Your task to perform on an android device: clear history in the chrome app Image 0: 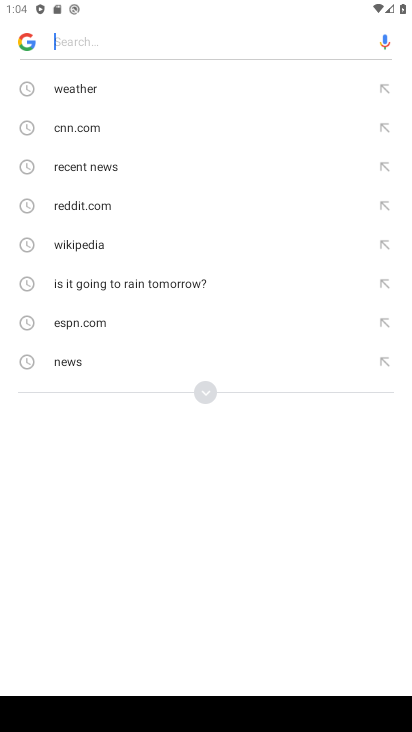
Step 0: press home button
Your task to perform on an android device: clear history in the chrome app Image 1: 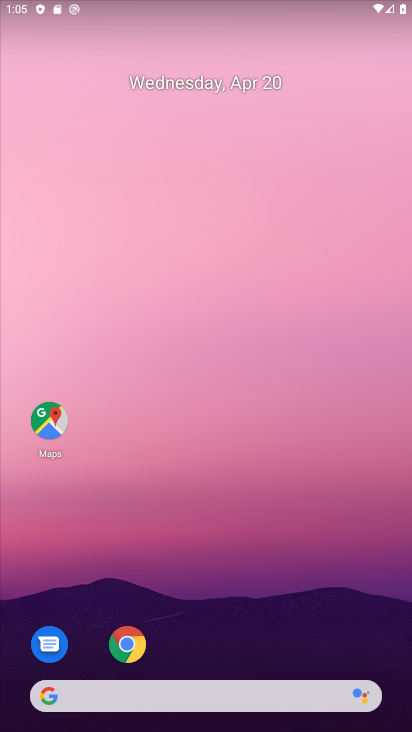
Step 1: click (130, 647)
Your task to perform on an android device: clear history in the chrome app Image 2: 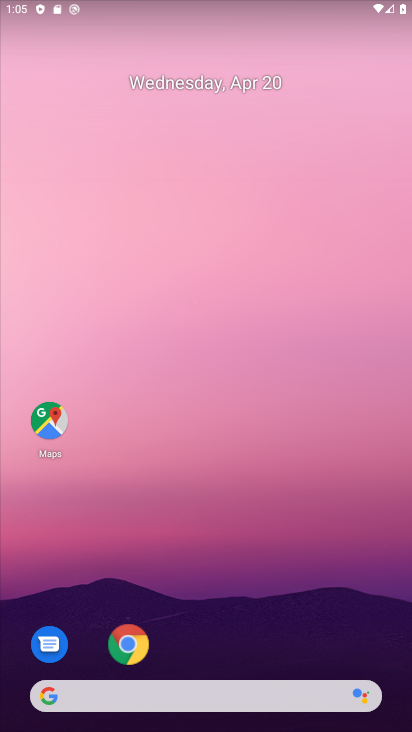
Step 2: click (129, 650)
Your task to perform on an android device: clear history in the chrome app Image 3: 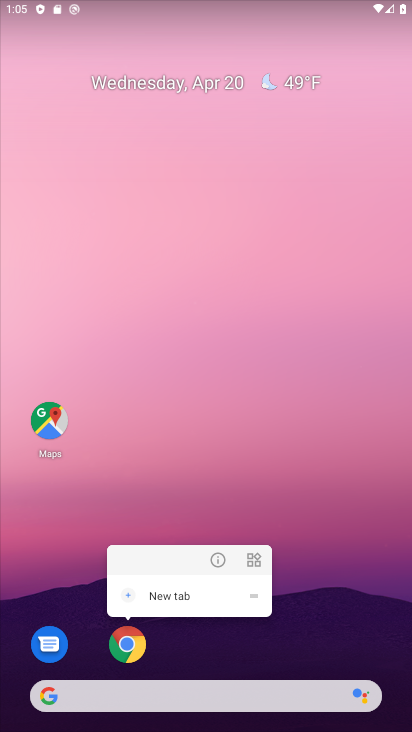
Step 3: click (123, 643)
Your task to perform on an android device: clear history in the chrome app Image 4: 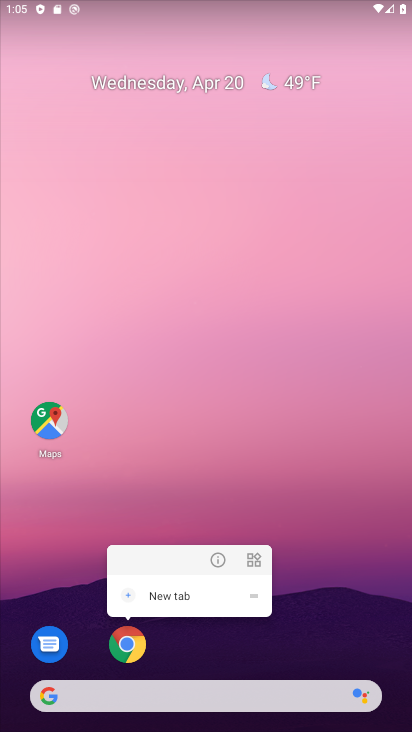
Step 4: click (124, 646)
Your task to perform on an android device: clear history in the chrome app Image 5: 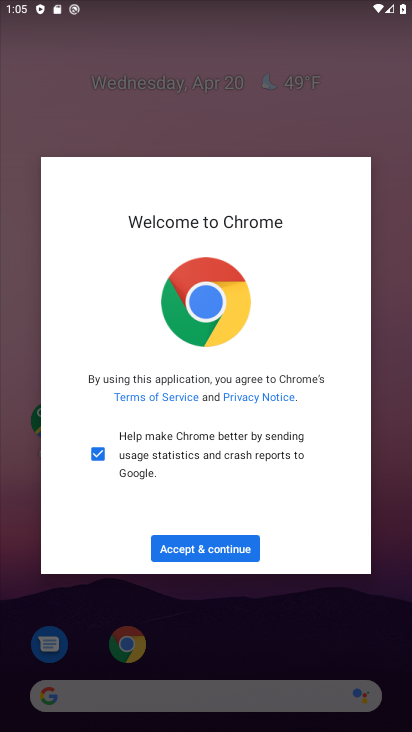
Step 5: click (211, 543)
Your task to perform on an android device: clear history in the chrome app Image 6: 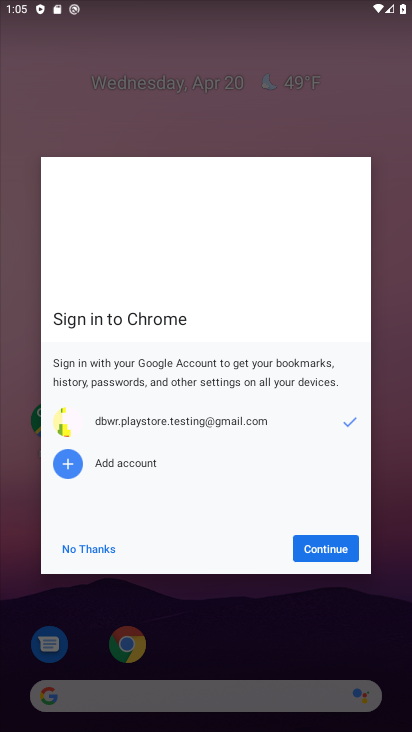
Step 6: click (338, 553)
Your task to perform on an android device: clear history in the chrome app Image 7: 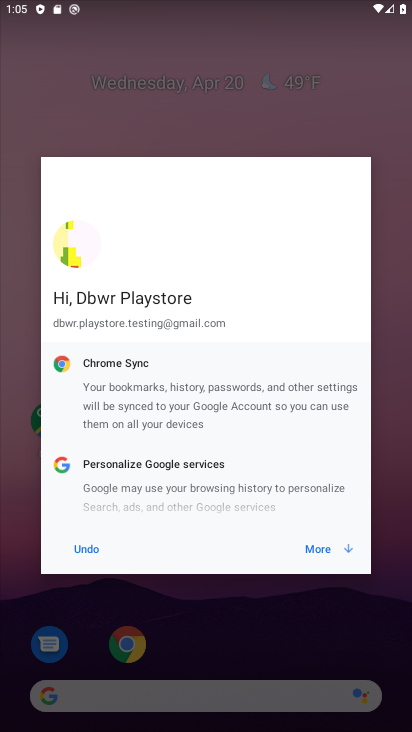
Step 7: click (338, 553)
Your task to perform on an android device: clear history in the chrome app Image 8: 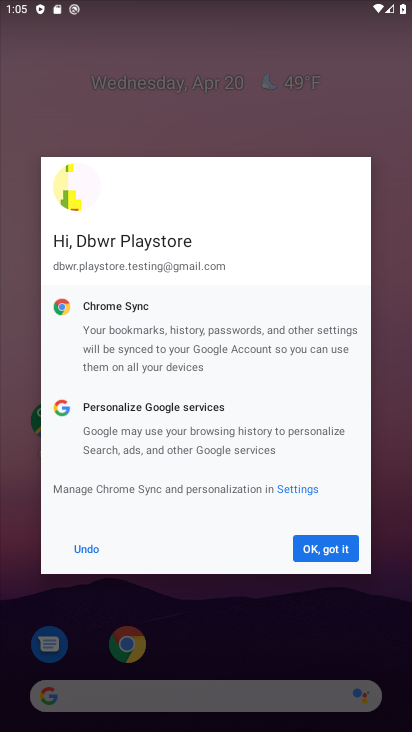
Step 8: click (338, 553)
Your task to perform on an android device: clear history in the chrome app Image 9: 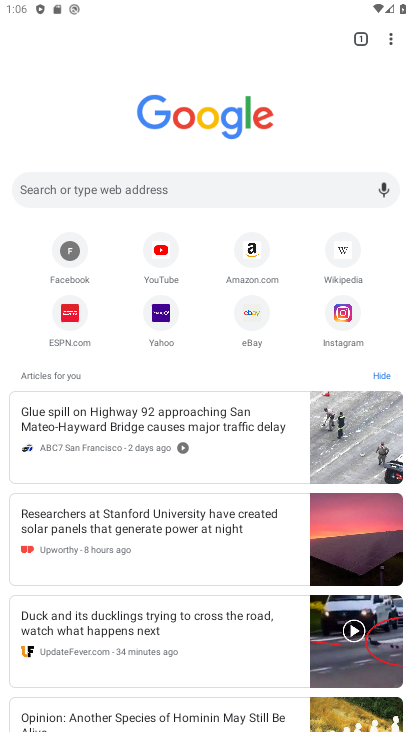
Step 9: task complete